Your task to perform on an android device: Show me the alarms in the clock app Image 0: 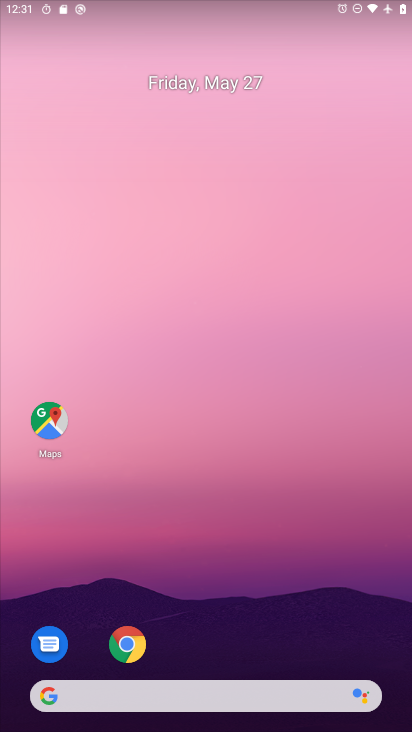
Step 0: drag from (217, 657) to (210, 246)
Your task to perform on an android device: Show me the alarms in the clock app Image 1: 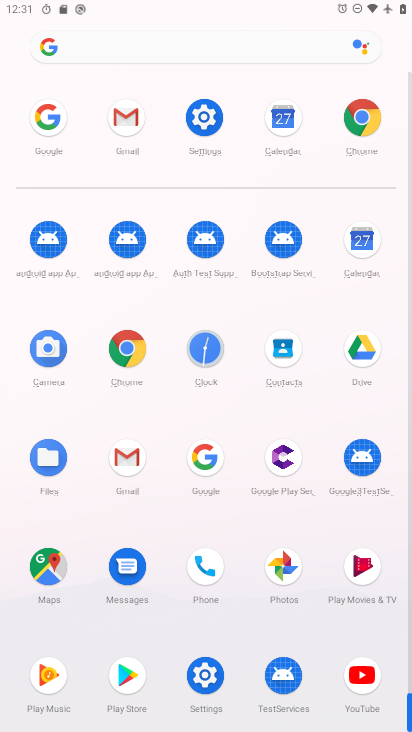
Step 1: click (204, 331)
Your task to perform on an android device: Show me the alarms in the clock app Image 2: 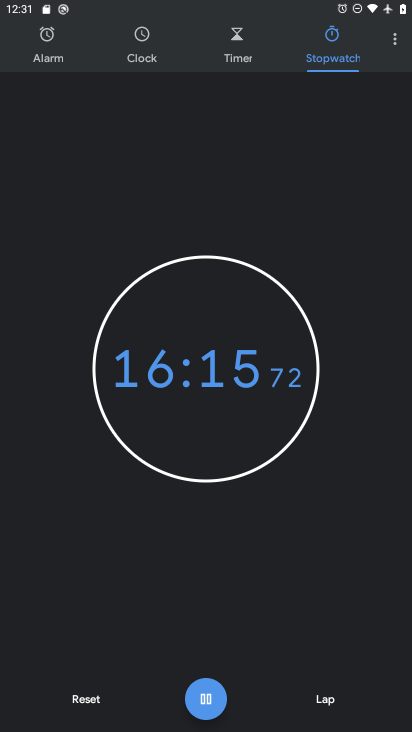
Step 2: click (45, 26)
Your task to perform on an android device: Show me the alarms in the clock app Image 3: 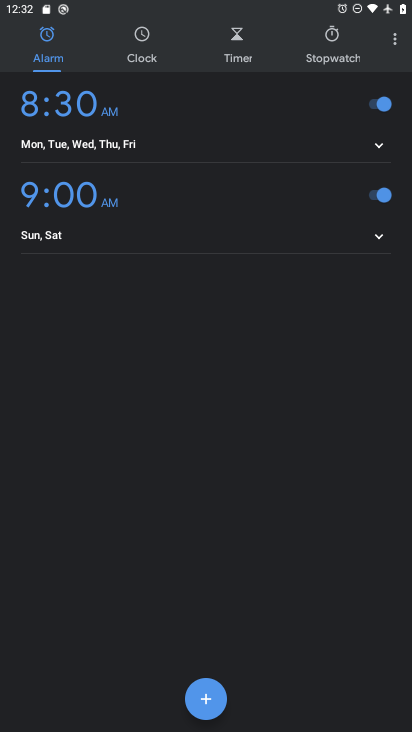
Step 3: task complete